Your task to perform on an android device: Go to ESPN.com Image 0: 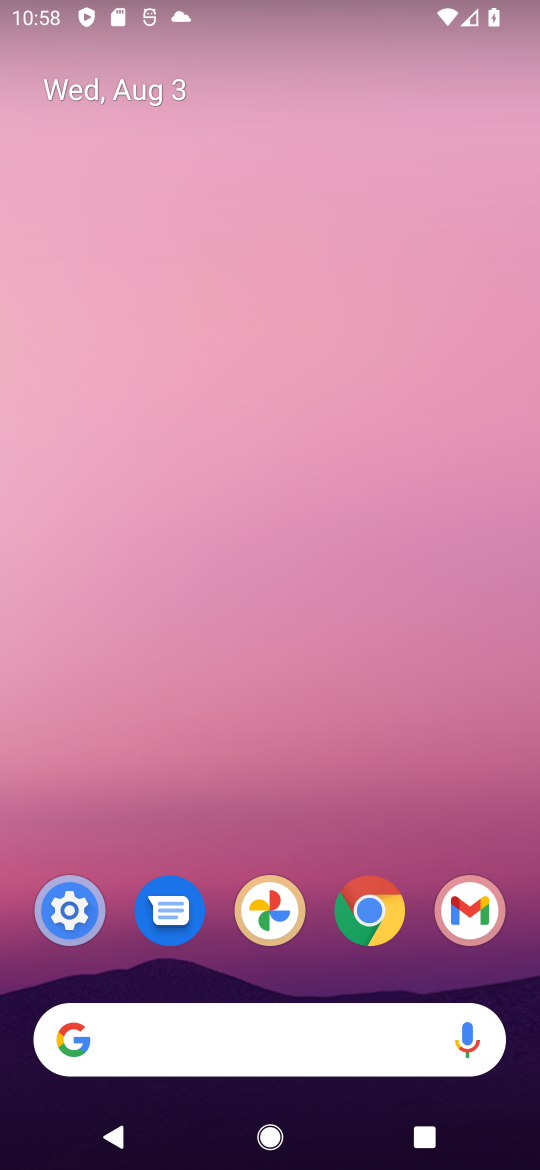
Step 0: press home button
Your task to perform on an android device: Go to ESPN.com Image 1: 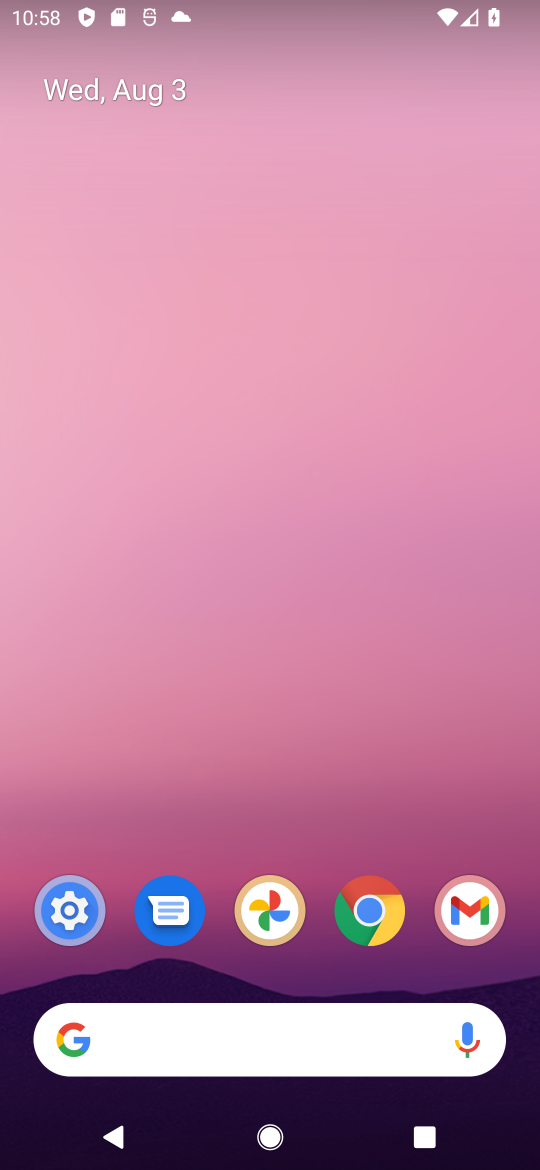
Step 1: click (365, 900)
Your task to perform on an android device: Go to ESPN.com Image 2: 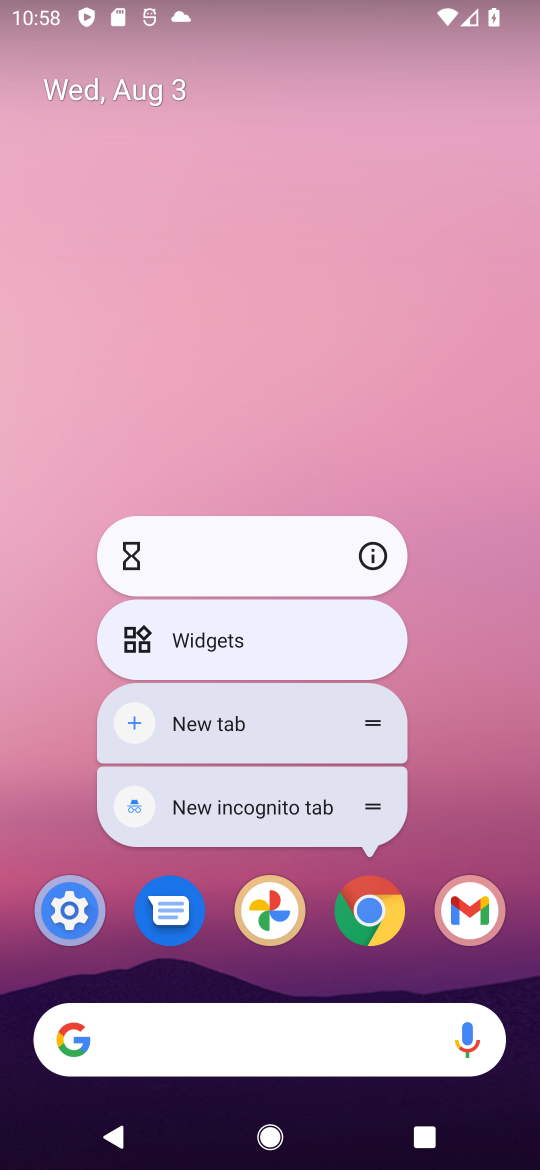
Step 2: click (361, 927)
Your task to perform on an android device: Go to ESPN.com Image 3: 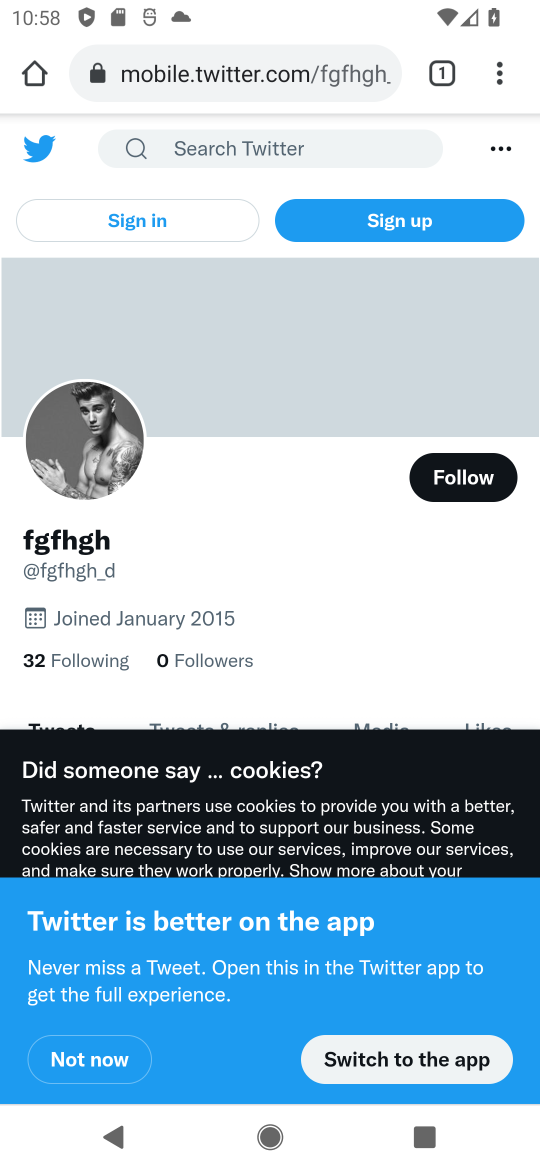
Step 3: click (440, 66)
Your task to perform on an android device: Go to ESPN.com Image 4: 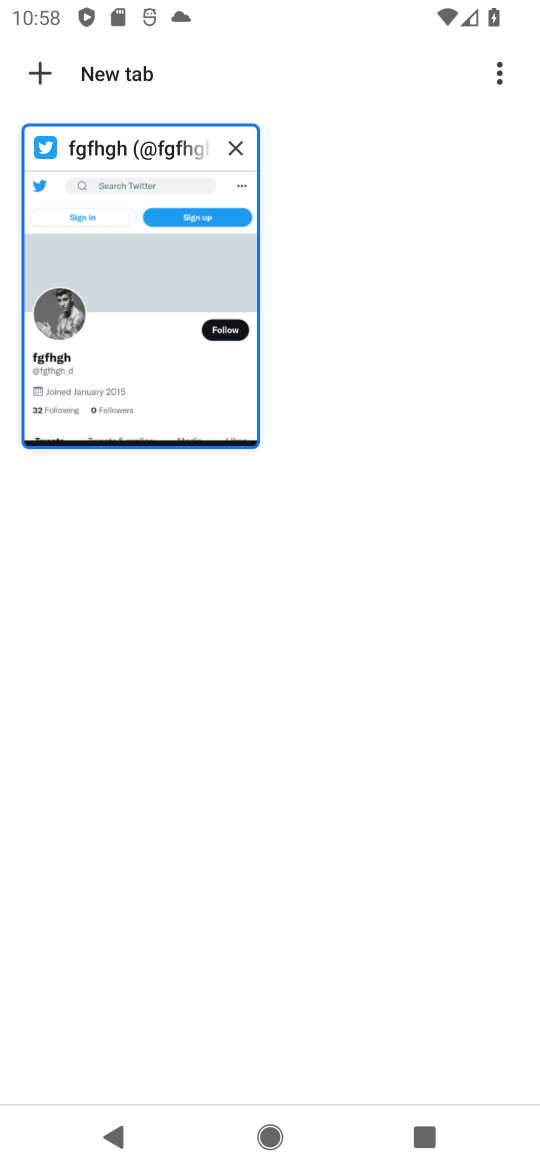
Step 4: click (43, 77)
Your task to perform on an android device: Go to ESPN.com Image 5: 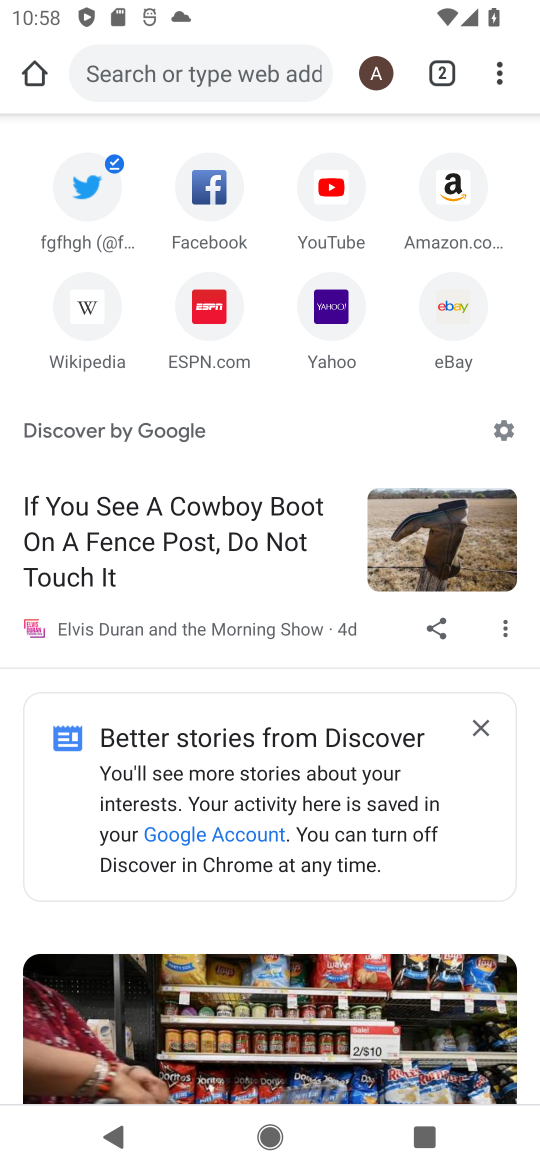
Step 5: click (210, 300)
Your task to perform on an android device: Go to ESPN.com Image 6: 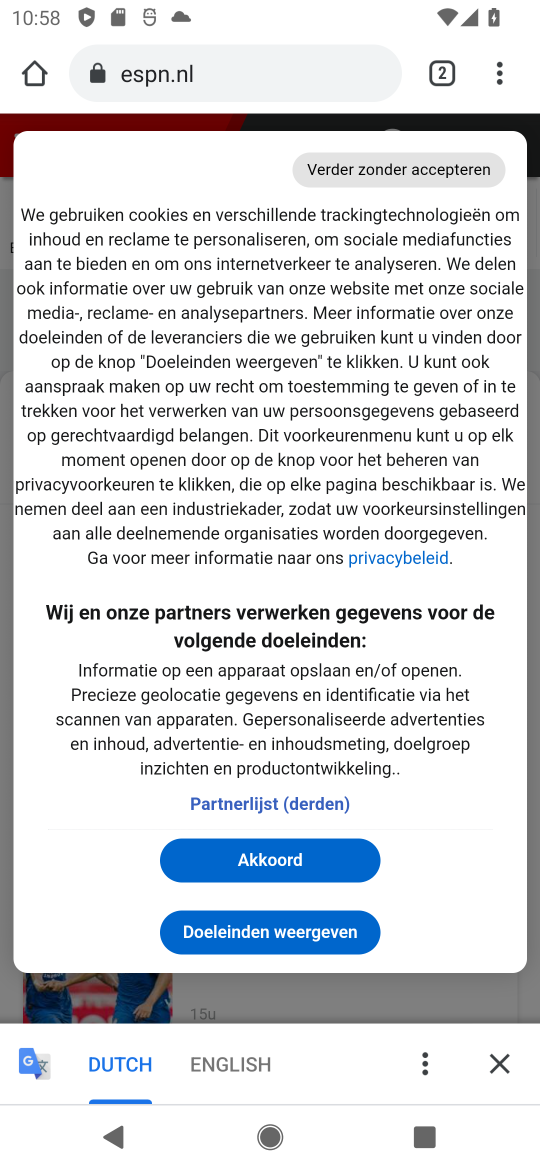
Step 6: click (277, 859)
Your task to perform on an android device: Go to ESPN.com Image 7: 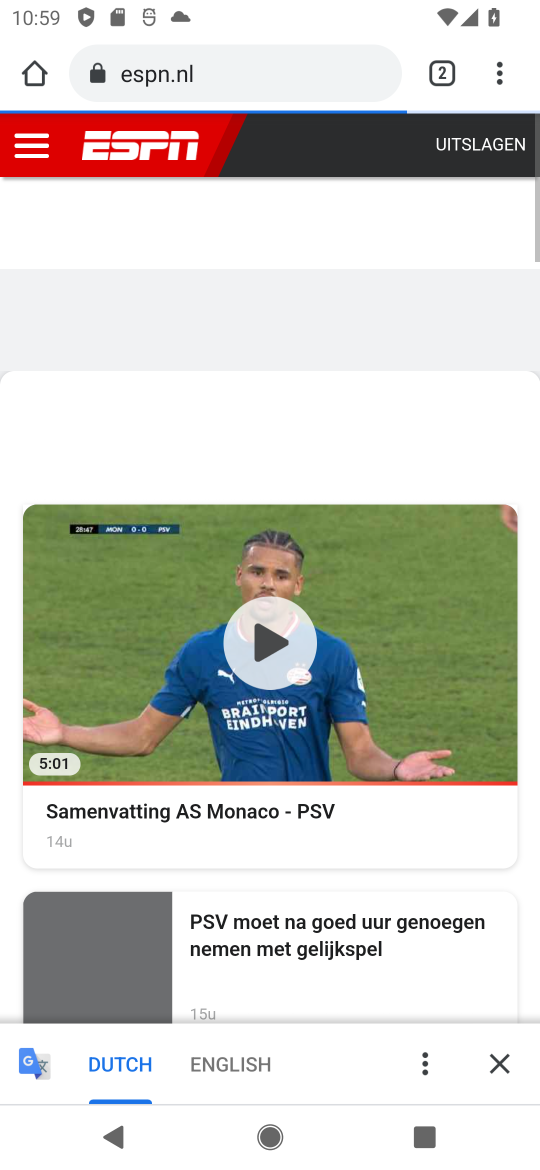
Step 7: task complete